Your task to perform on an android device: When is my next meeting? Image 0: 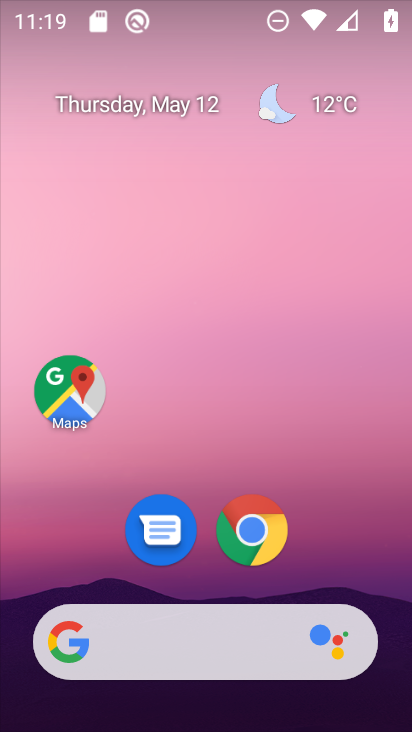
Step 0: press home button
Your task to perform on an android device: When is my next meeting? Image 1: 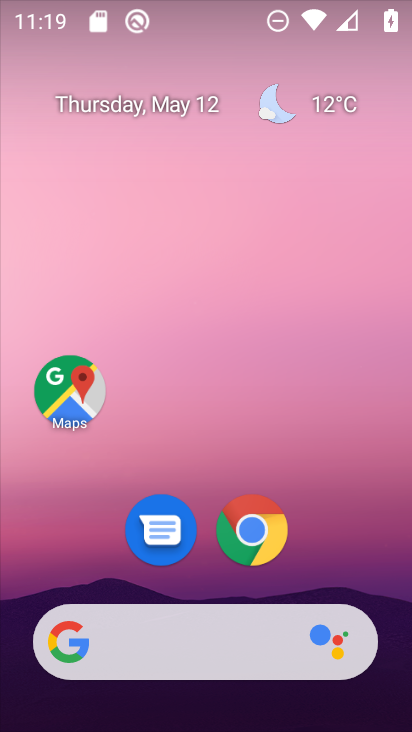
Step 1: drag from (224, 635) to (369, 74)
Your task to perform on an android device: When is my next meeting? Image 2: 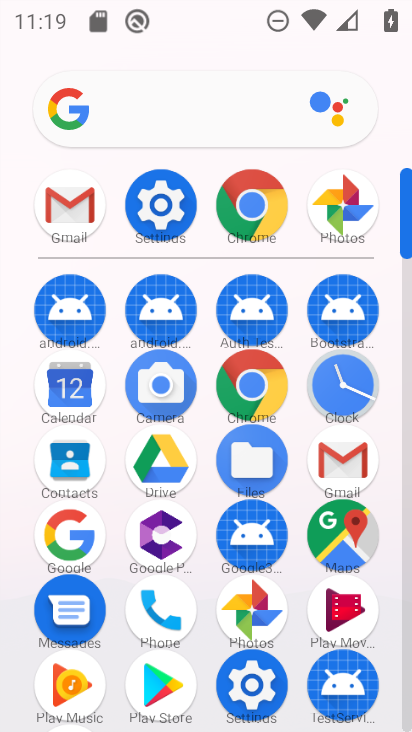
Step 2: click (70, 403)
Your task to perform on an android device: When is my next meeting? Image 3: 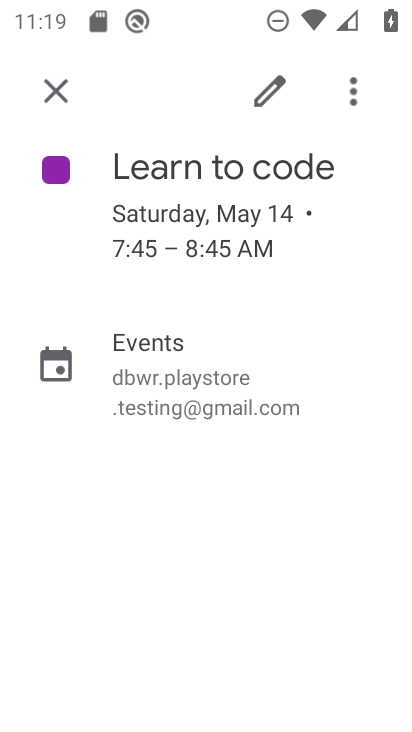
Step 3: click (54, 92)
Your task to perform on an android device: When is my next meeting? Image 4: 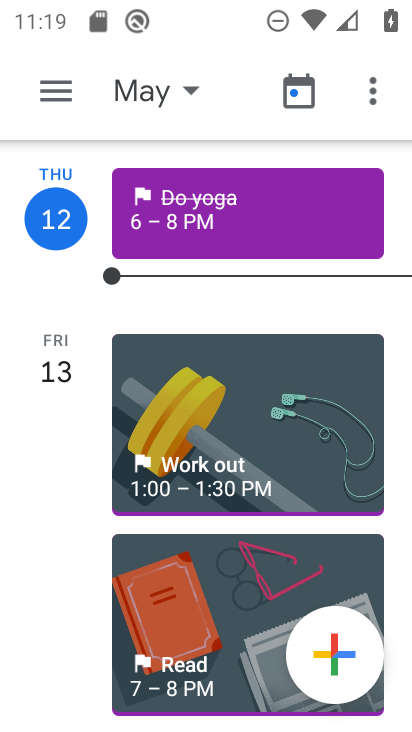
Step 4: click (145, 83)
Your task to perform on an android device: When is my next meeting? Image 5: 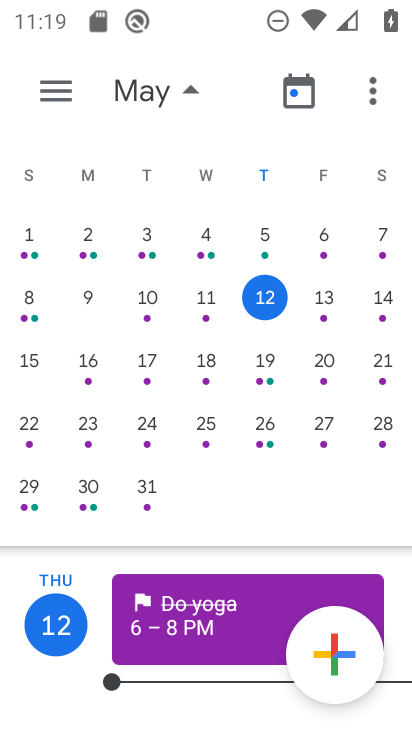
Step 5: click (265, 303)
Your task to perform on an android device: When is my next meeting? Image 6: 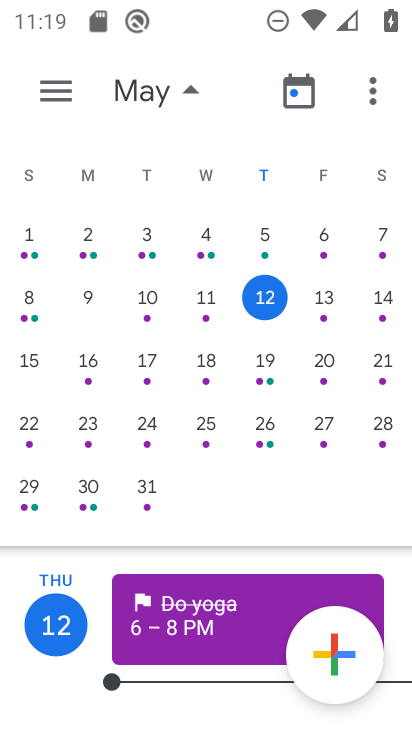
Step 6: click (56, 88)
Your task to perform on an android device: When is my next meeting? Image 7: 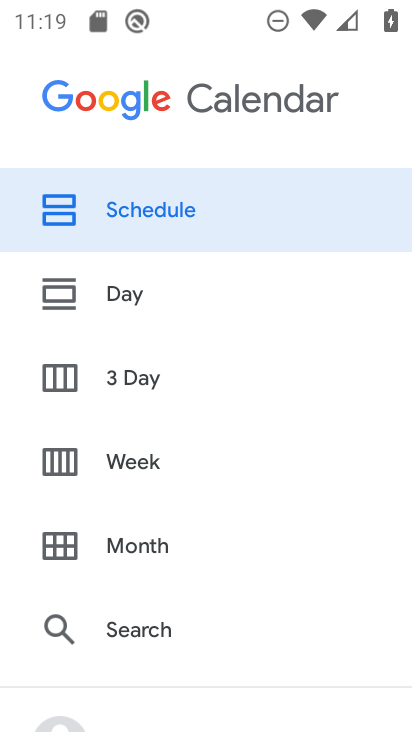
Step 7: click (135, 205)
Your task to perform on an android device: When is my next meeting? Image 8: 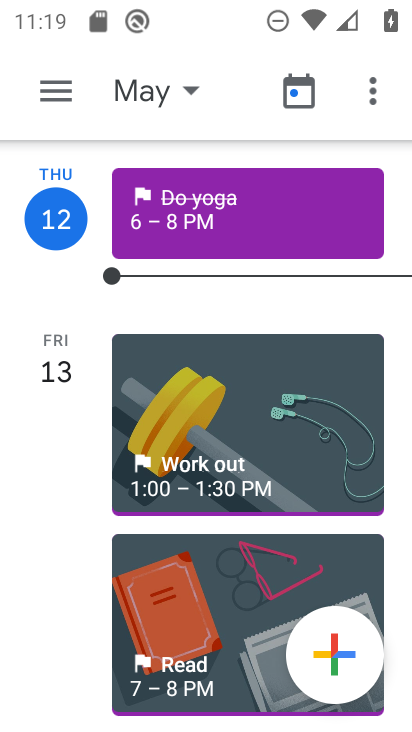
Step 8: click (172, 233)
Your task to perform on an android device: When is my next meeting? Image 9: 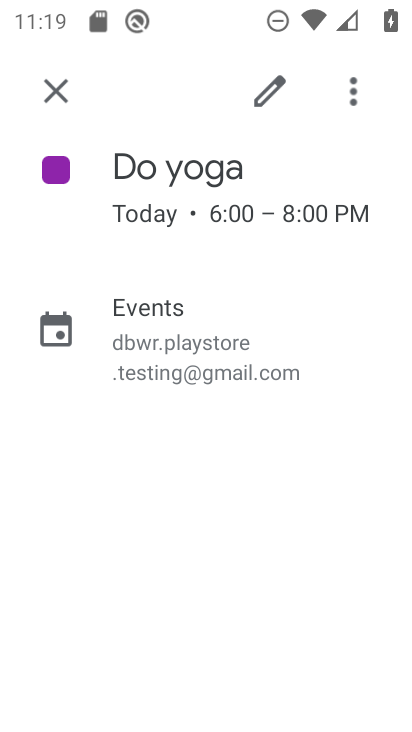
Step 9: task complete